Your task to perform on an android device: Go to Yahoo.com Image 0: 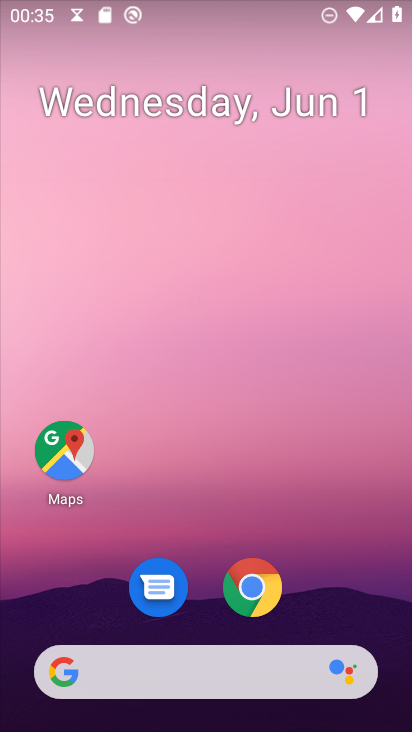
Step 0: click (247, 586)
Your task to perform on an android device: Go to Yahoo.com Image 1: 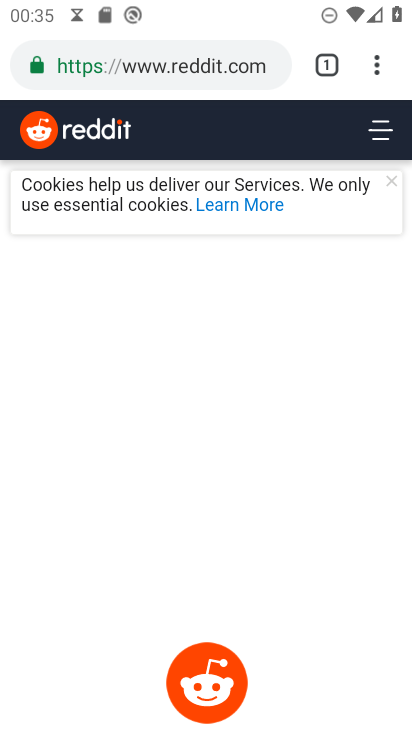
Step 1: click (188, 69)
Your task to perform on an android device: Go to Yahoo.com Image 2: 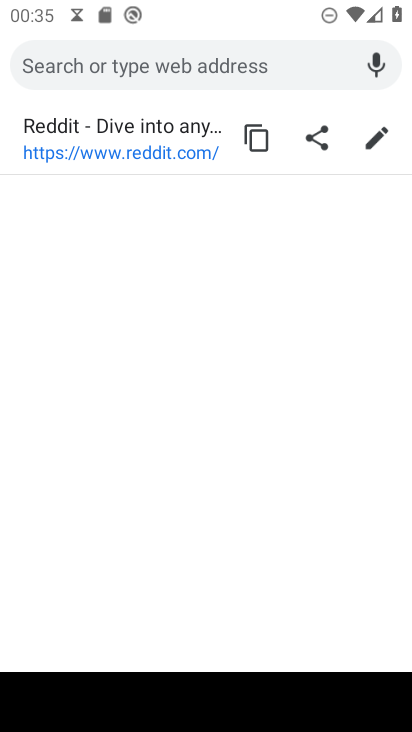
Step 2: type "yahoo.com"
Your task to perform on an android device: Go to Yahoo.com Image 3: 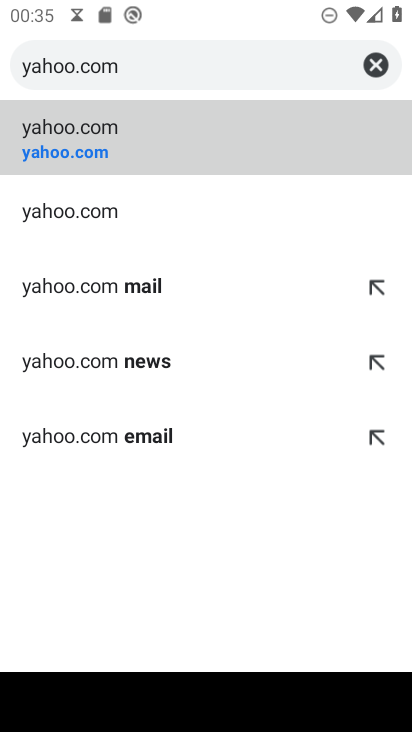
Step 3: click (90, 150)
Your task to perform on an android device: Go to Yahoo.com Image 4: 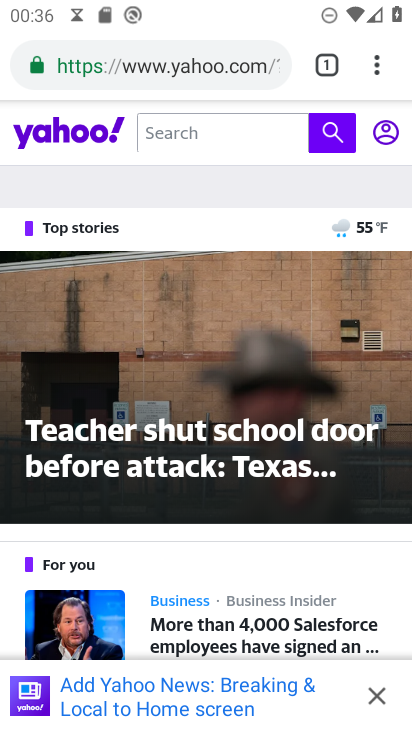
Step 4: task complete